Your task to perform on an android device: allow notifications from all sites in the chrome app Image 0: 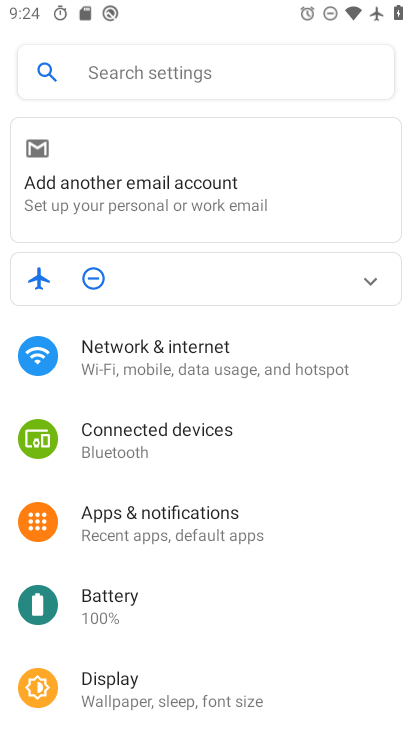
Step 0: press home button
Your task to perform on an android device: allow notifications from all sites in the chrome app Image 1: 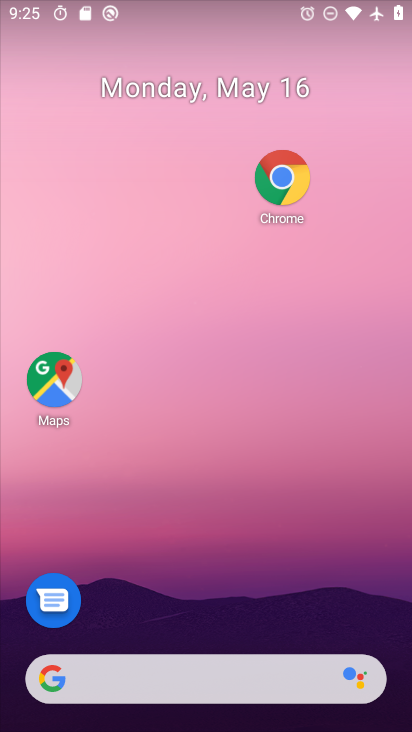
Step 1: click (288, 191)
Your task to perform on an android device: allow notifications from all sites in the chrome app Image 2: 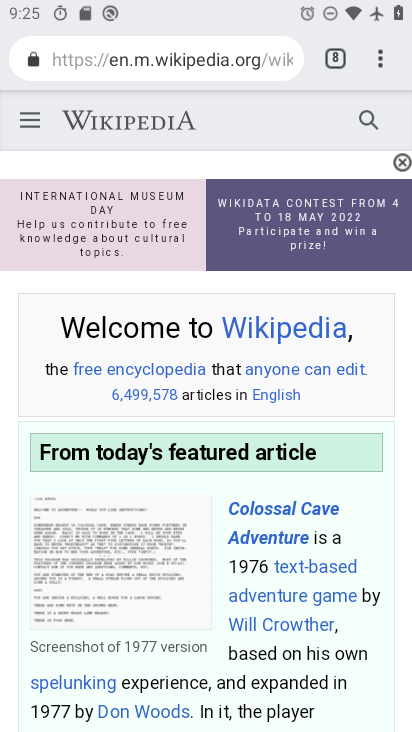
Step 2: drag from (379, 65) to (244, 636)
Your task to perform on an android device: allow notifications from all sites in the chrome app Image 3: 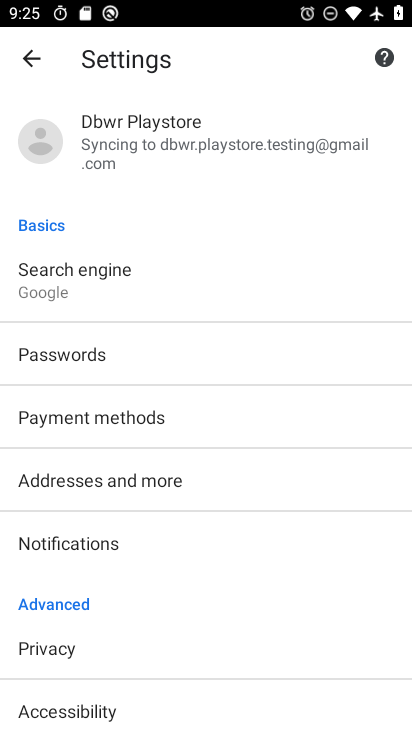
Step 3: drag from (211, 638) to (327, 114)
Your task to perform on an android device: allow notifications from all sites in the chrome app Image 4: 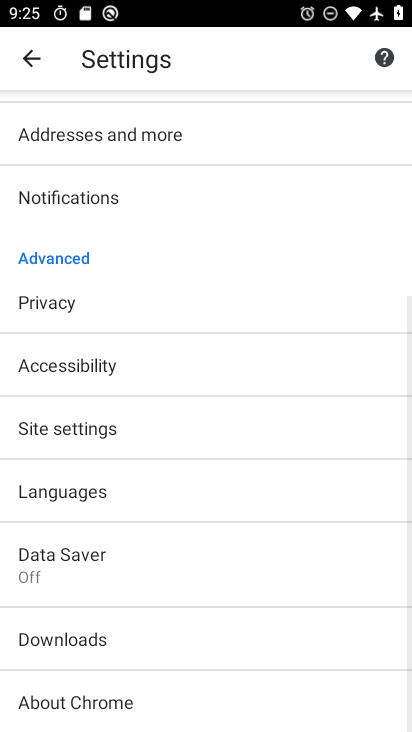
Step 4: drag from (176, 599) to (343, 69)
Your task to perform on an android device: allow notifications from all sites in the chrome app Image 5: 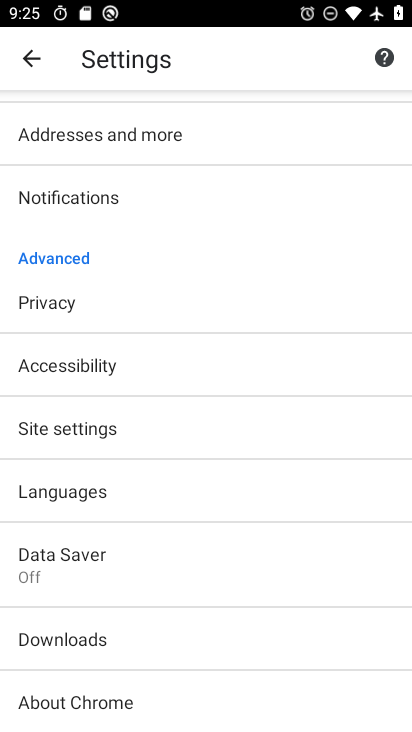
Step 5: click (132, 425)
Your task to perform on an android device: allow notifications from all sites in the chrome app Image 6: 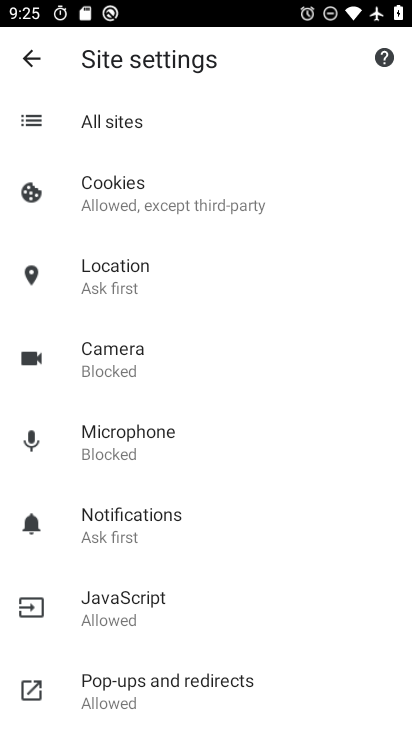
Step 6: click (154, 513)
Your task to perform on an android device: allow notifications from all sites in the chrome app Image 7: 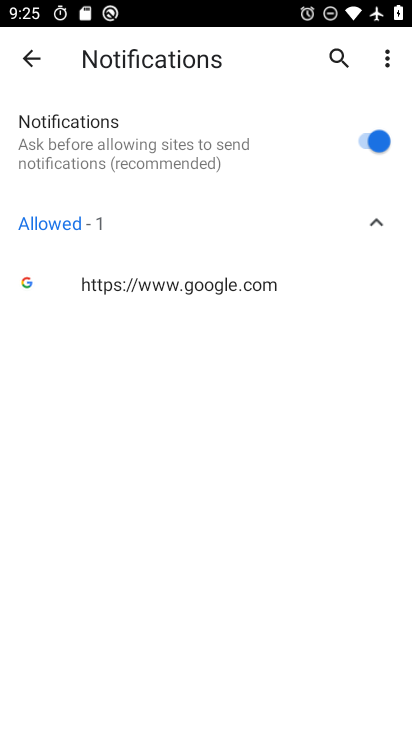
Step 7: task complete